Your task to perform on an android device: Go to wifi settings Image 0: 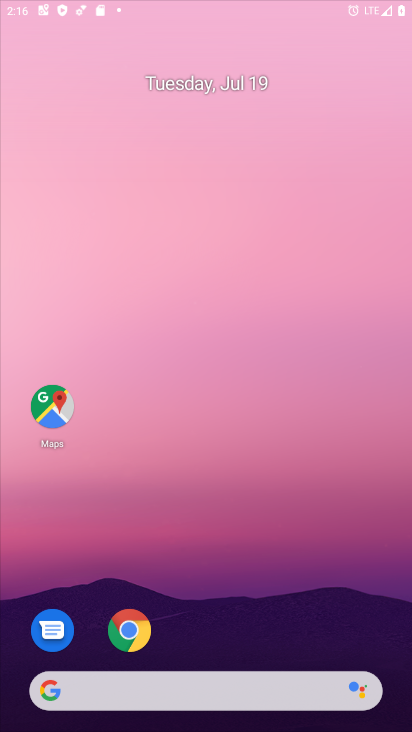
Step 0: press home button
Your task to perform on an android device: Go to wifi settings Image 1: 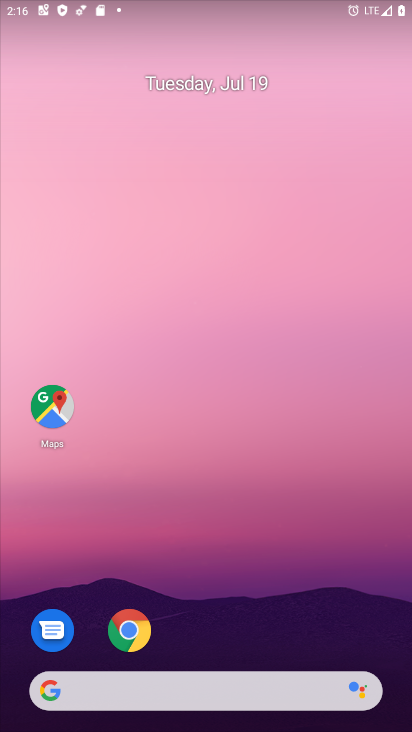
Step 1: drag from (230, 654) to (264, 61)
Your task to perform on an android device: Go to wifi settings Image 2: 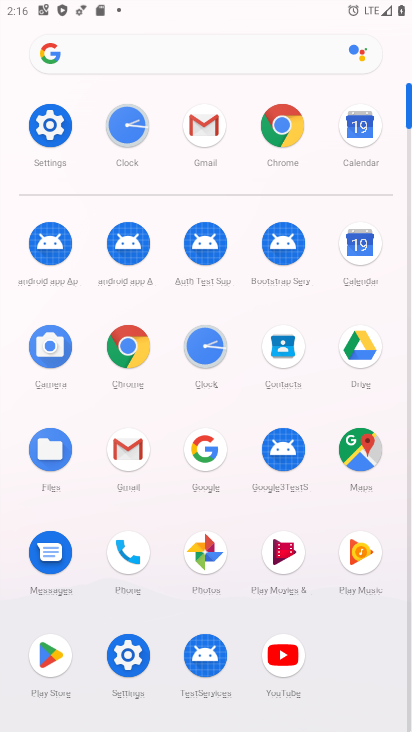
Step 2: click (47, 117)
Your task to perform on an android device: Go to wifi settings Image 3: 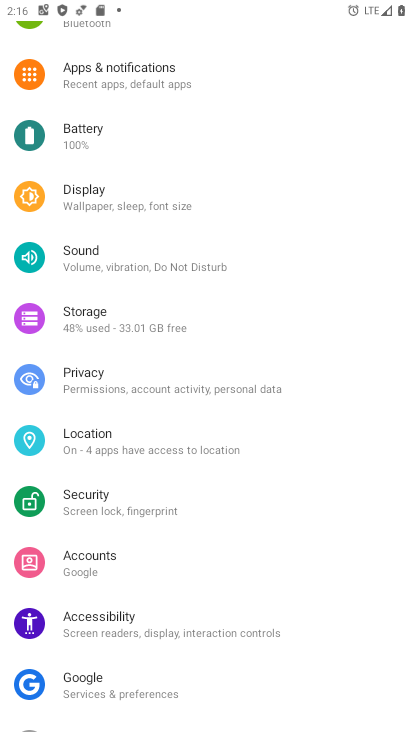
Step 3: drag from (135, 112) to (167, 642)
Your task to perform on an android device: Go to wifi settings Image 4: 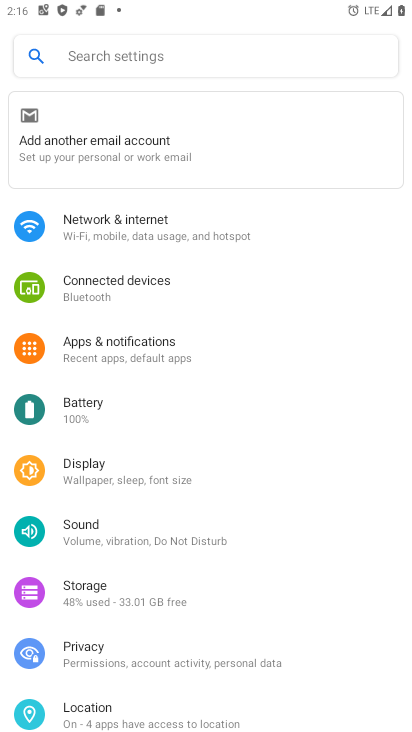
Step 4: click (172, 216)
Your task to perform on an android device: Go to wifi settings Image 5: 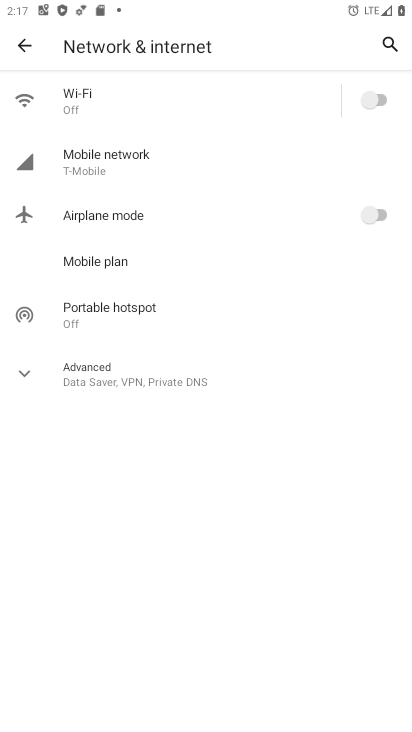
Step 5: click (115, 94)
Your task to perform on an android device: Go to wifi settings Image 6: 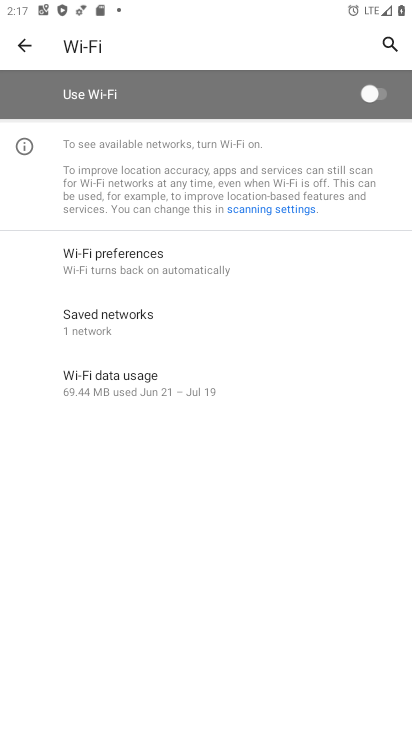
Step 6: task complete